Your task to perform on an android device: Open eBay Image 0: 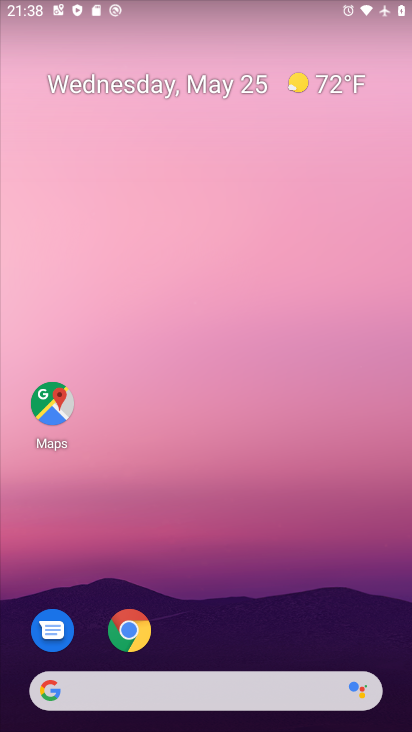
Step 0: click (119, 633)
Your task to perform on an android device: Open eBay Image 1: 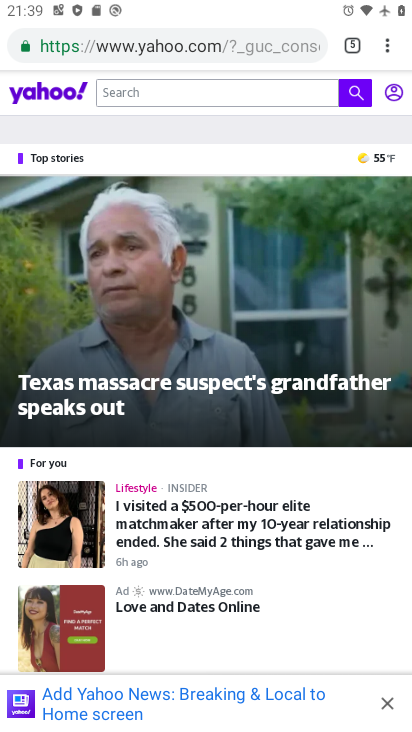
Step 1: click (344, 40)
Your task to perform on an android device: Open eBay Image 2: 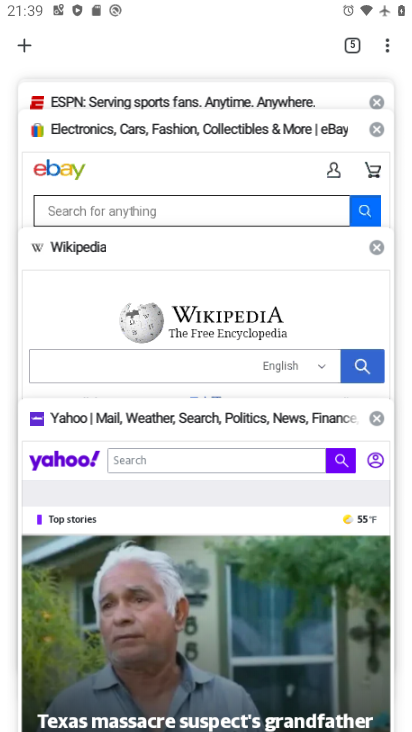
Step 2: click (83, 168)
Your task to perform on an android device: Open eBay Image 3: 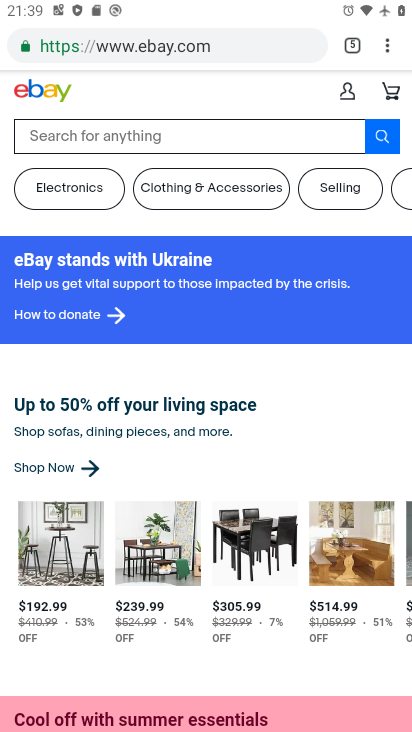
Step 3: task complete